Your task to perform on an android device: see sites visited before in the chrome app Image 0: 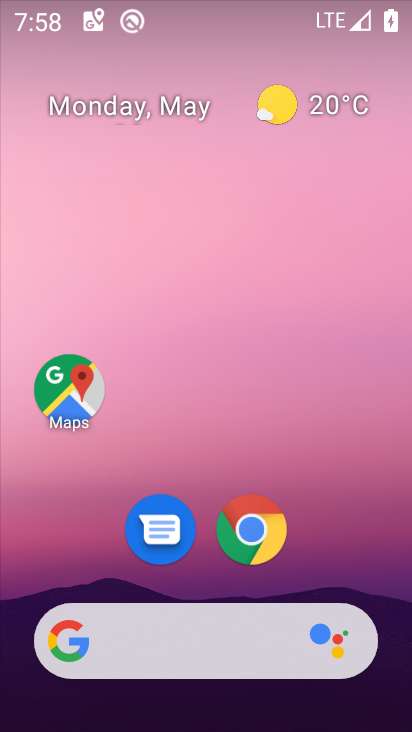
Step 0: click (244, 535)
Your task to perform on an android device: see sites visited before in the chrome app Image 1: 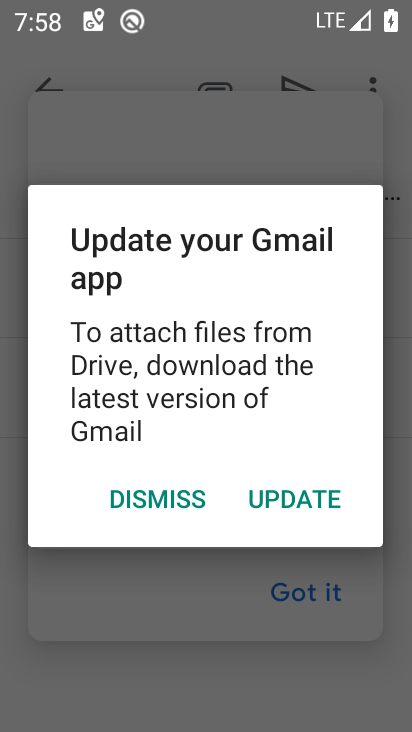
Step 1: press home button
Your task to perform on an android device: see sites visited before in the chrome app Image 2: 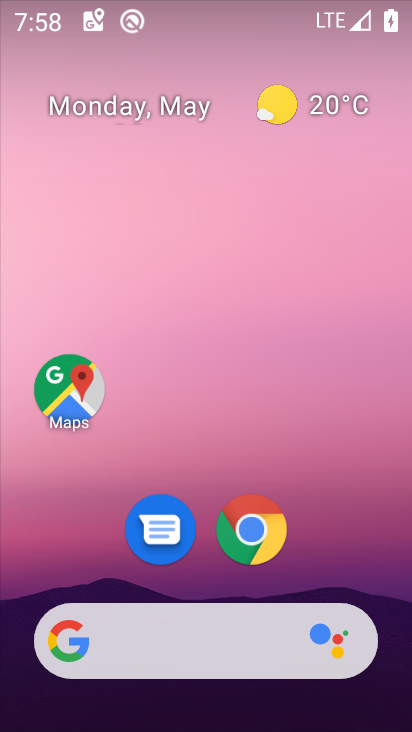
Step 2: click (248, 521)
Your task to perform on an android device: see sites visited before in the chrome app Image 3: 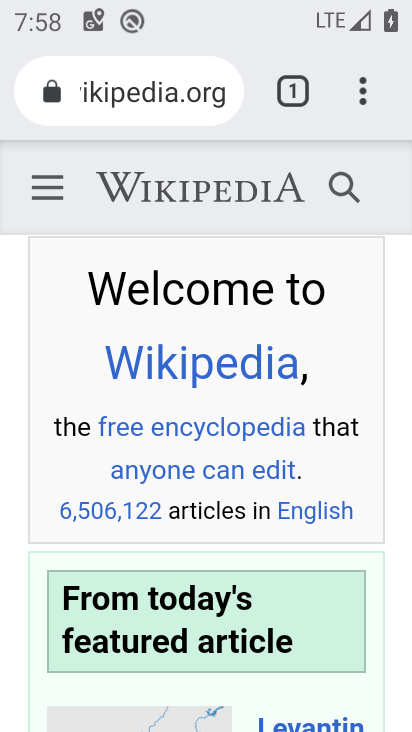
Step 3: click (361, 93)
Your task to perform on an android device: see sites visited before in the chrome app Image 4: 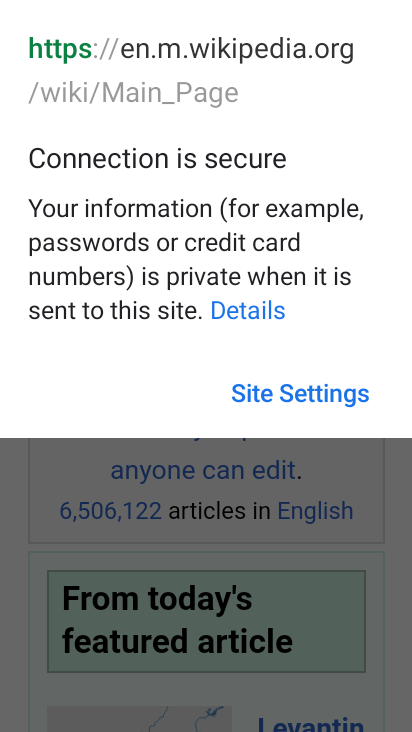
Step 4: press back button
Your task to perform on an android device: see sites visited before in the chrome app Image 5: 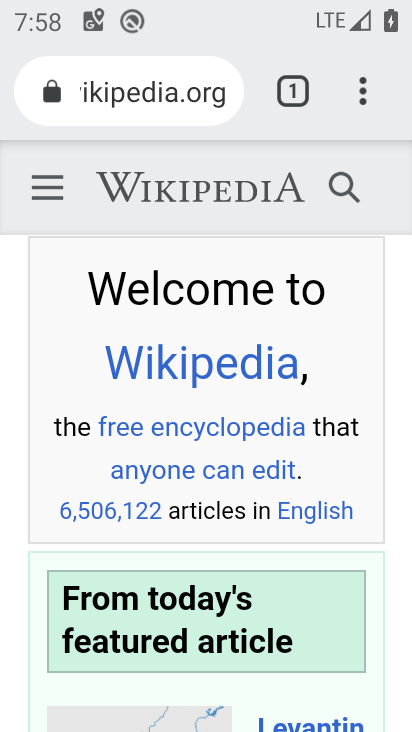
Step 5: click (360, 90)
Your task to perform on an android device: see sites visited before in the chrome app Image 6: 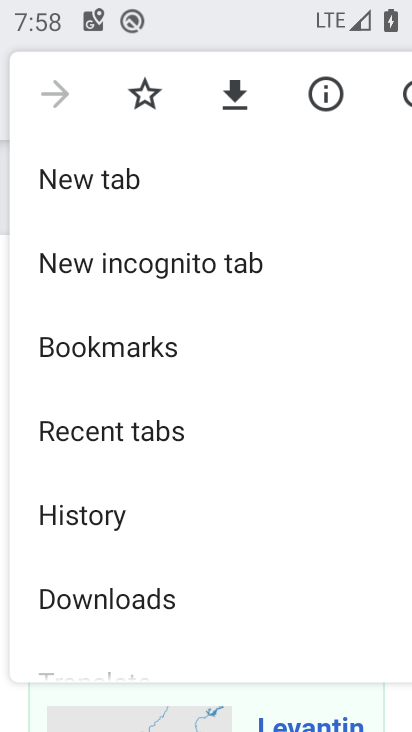
Step 6: click (81, 505)
Your task to perform on an android device: see sites visited before in the chrome app Image 7: 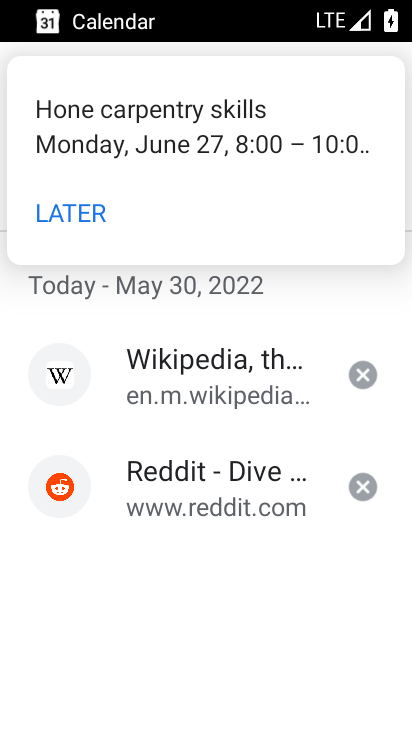
Step 7: task complete